Your task to perform on an android device: change notifications settings Image 0: 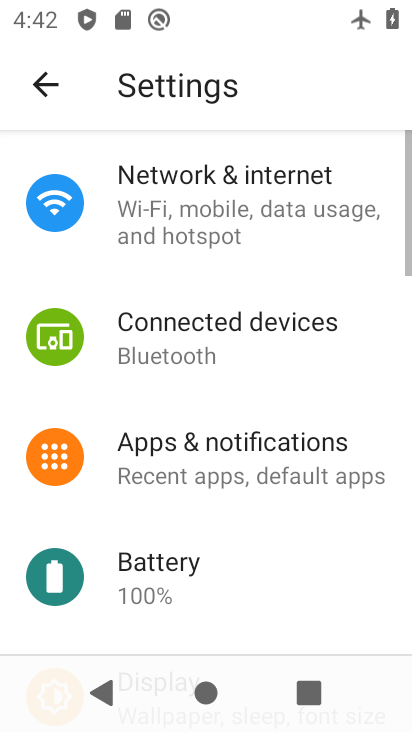
Step 0: drag from (248, 663) to (80, 211)
Your task to perform on an android device: change notifications settings Image 1: 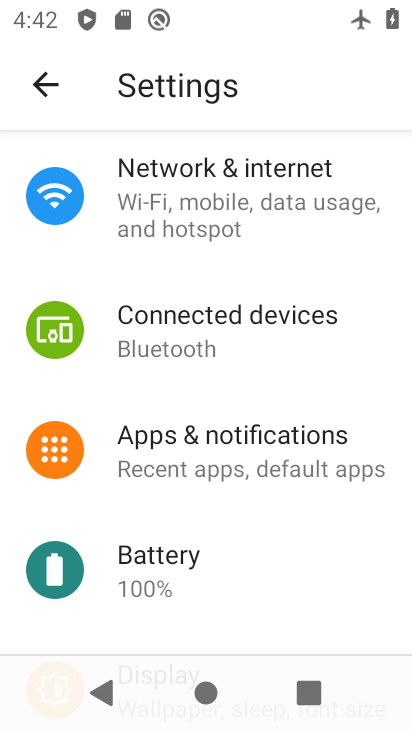
Step 1: click (183, 445)
Your task to perform on an android device: change notifications settings Image 2: 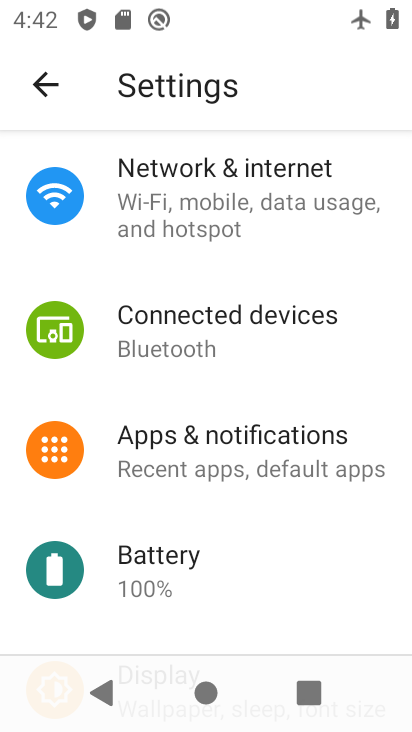
Step 2: click (186, 443)
Your task to perform on an android device: change notifications settings Image 3: 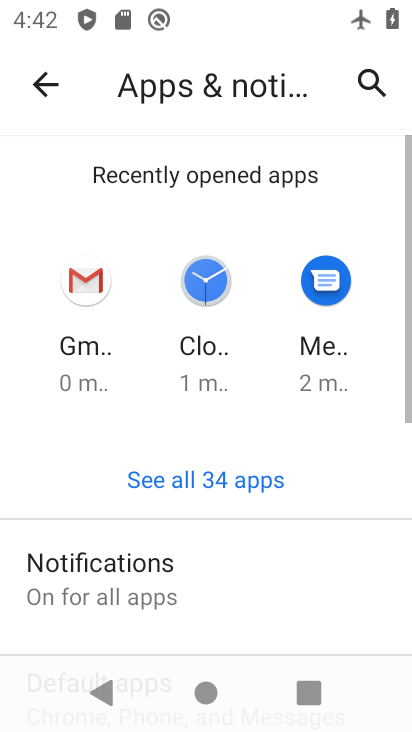
Step 3: click (233, 442)
Your task to perform on an android device: change notifications settings Image 4: 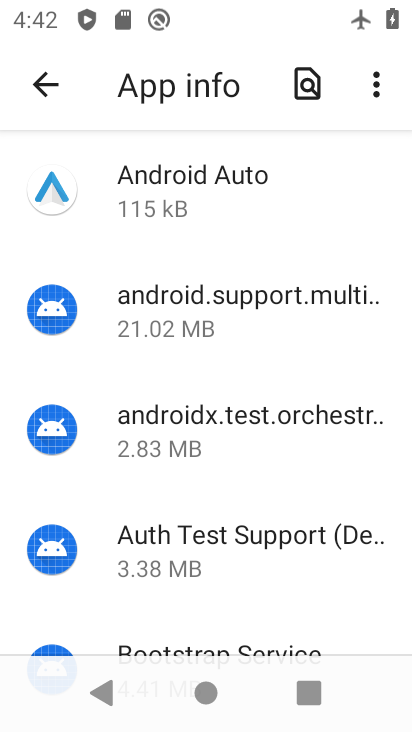
Step 4: drag from (196, 492) to (122, 19)
Your task to perform on an android device: change notifications settings Image 5: 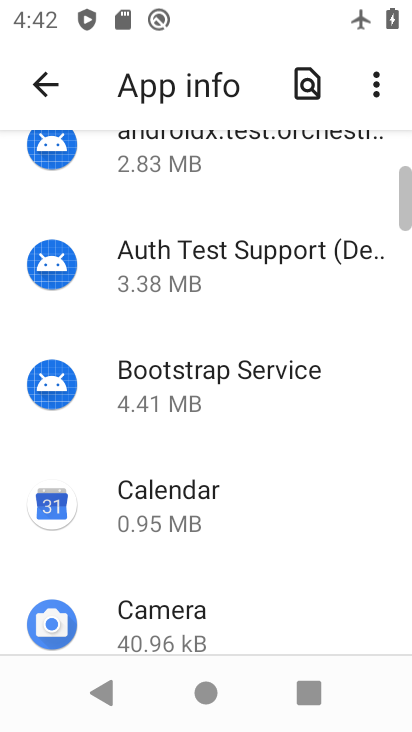
Step 5: click (47, 77)
Your task to perform on an android device: change notifications settings Image 6: 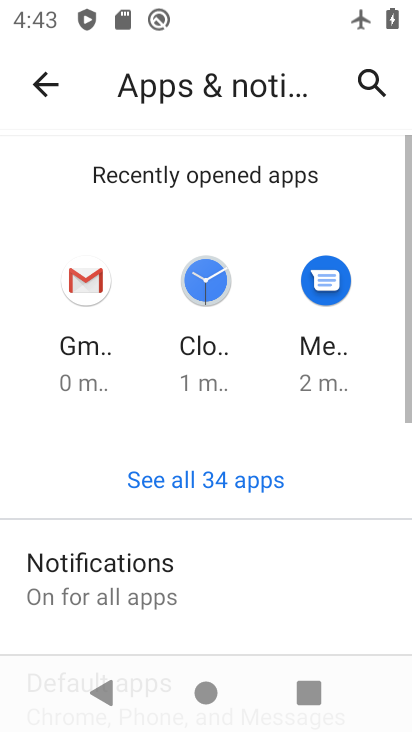
Step 6: click (137, 548)
Your task to perform on an android device: change notifications settings Image 7: 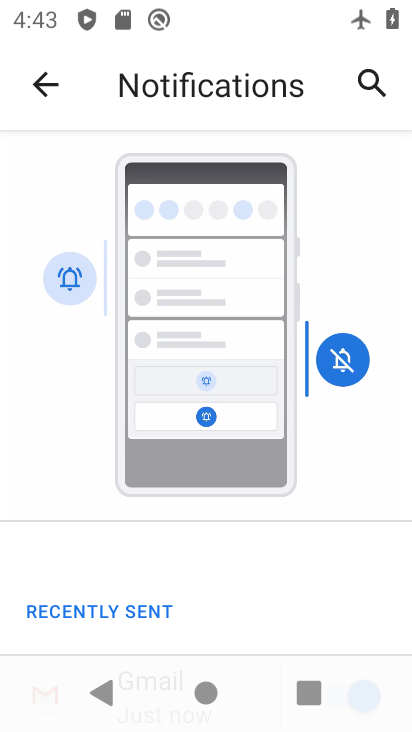
Step 7: drag from (178, 387) to (153, 81)
Your task to perform on an android device: change notifications settings Image 8: 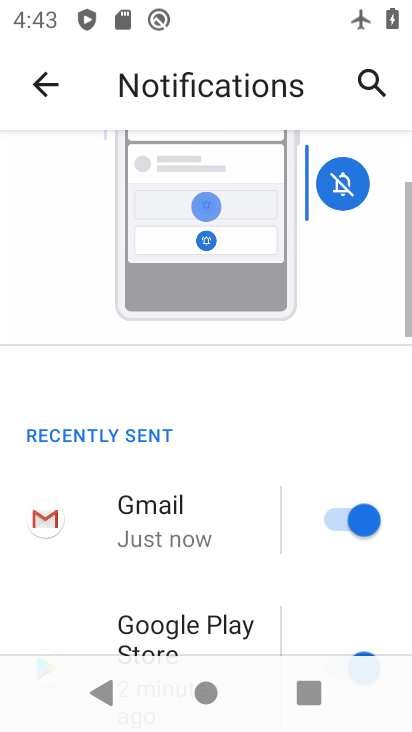
Step 8: drag from (51, 264) to (48, 45)
Your task to perform on an android device: change notifications settings Image 9: 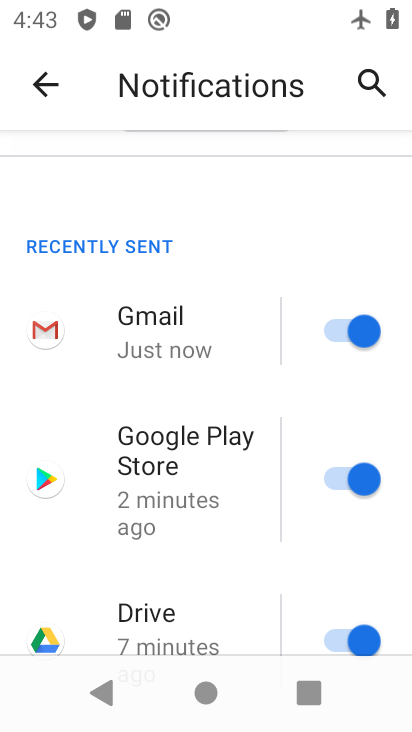
Step 9: drag from (186, 424) to (144, 115)
Your task to perform on an android device: change notifications settings Image 10: 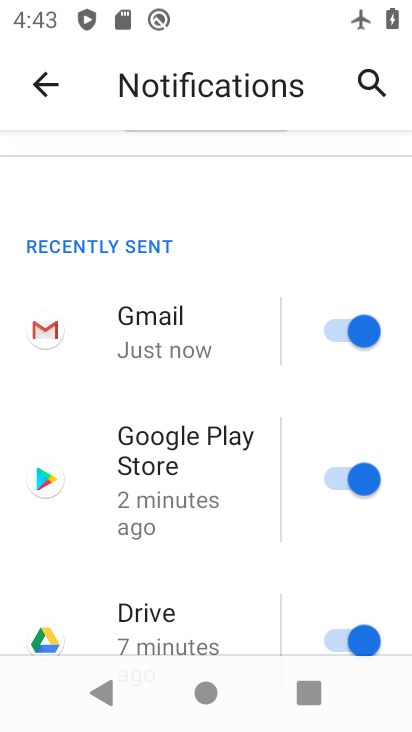
Step 10: click (190, 47)
Your task to perform on an android device: change notifications settings Image 11: 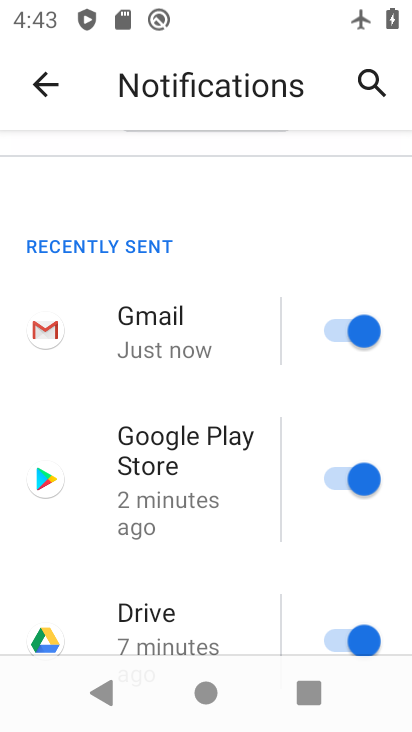
Step 11: drag from (183, 475) to (101, 71)
Your task to perform on an android device: change notifications settings Image 12: 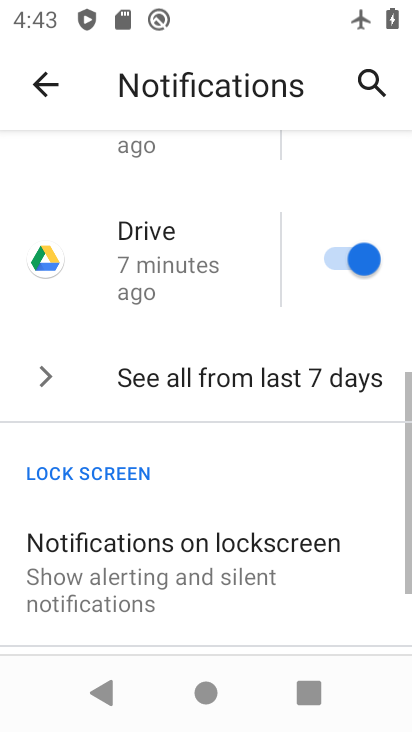
Step 12: drag from (223, 499) to (162, 132)
Your task to perform on an android device: change notifications settings Image 13: 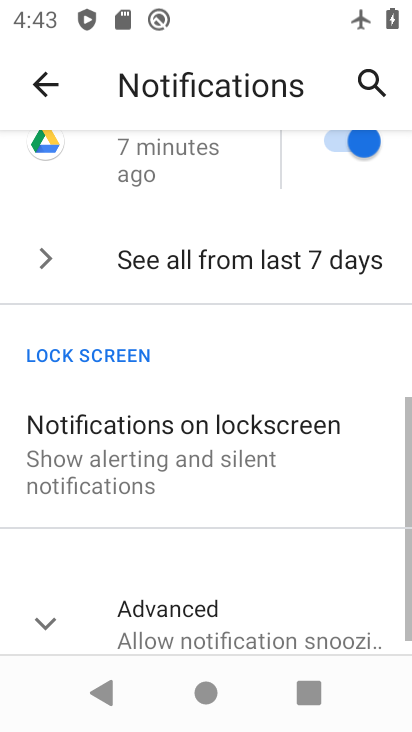
Step 13: drag from (243, 298) to (217, 163)
Your task to perform on an android device: change notifications settings Image 14: 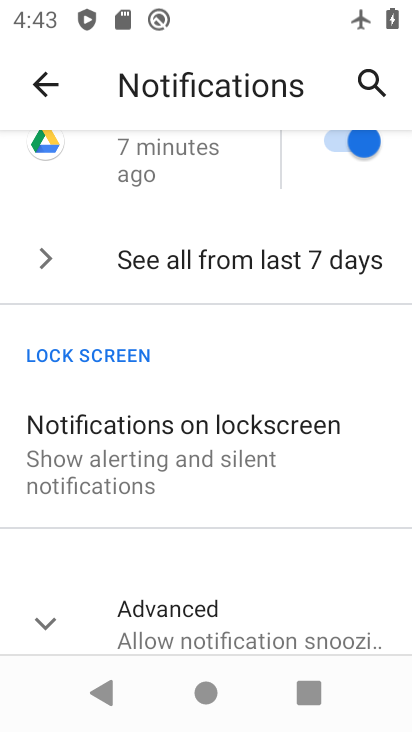
Step 14: click (261, 520)
Your task to perform on an android device: change notifications settings Image 15: 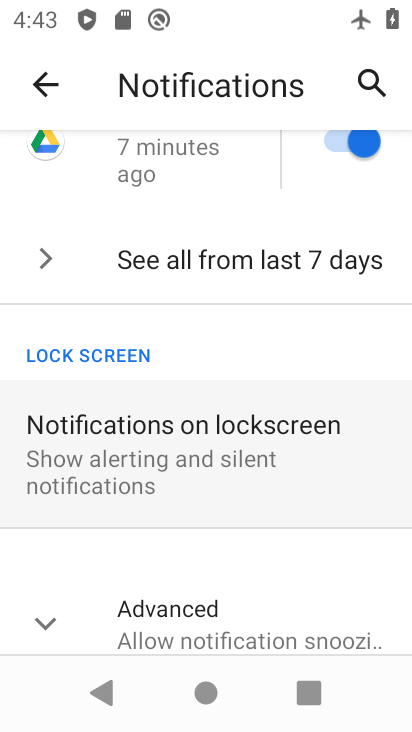
Step 15: click (197, 455)
Your task to perform on an android device: change notifications settings Image 16: 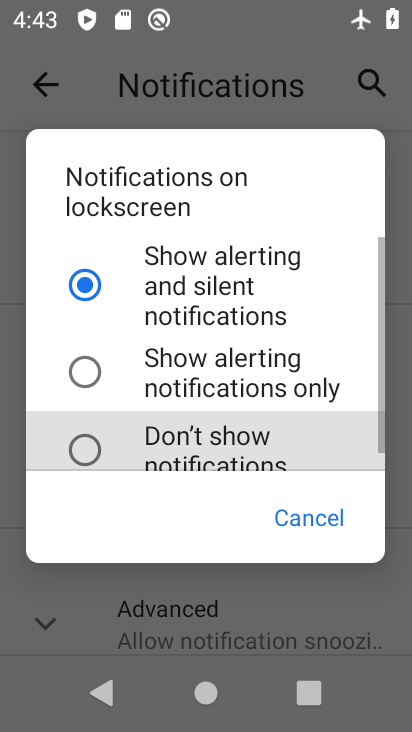
Step 16: click (166, 425)
Your task to perform on an android device: change notifications settings Image 17: 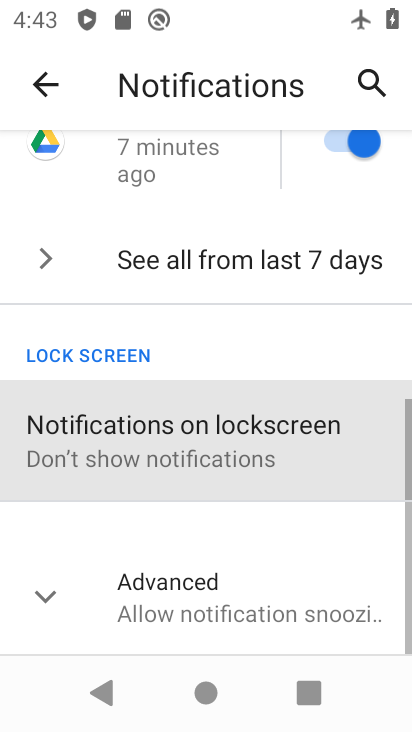
Step 17: click (156, 437)
Your task to perform on an android device: change notifications settings Image 18: 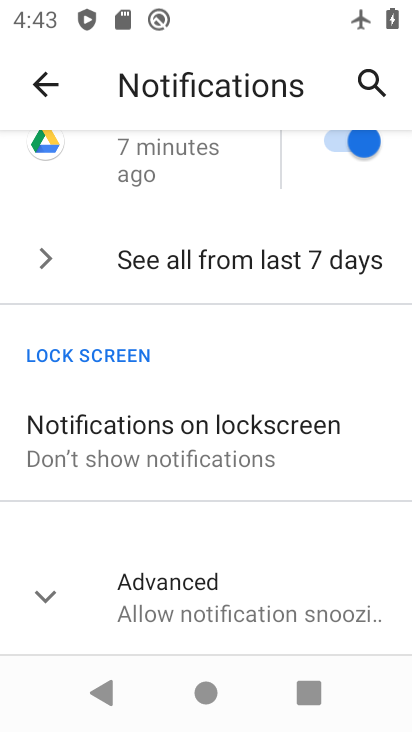
Step 18: click (159, 458)
Your task to perform on an android device: change notifications settings Image 19: 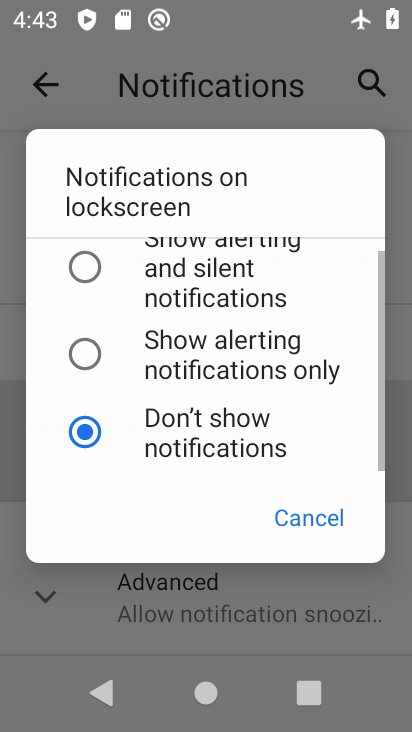
Step 19: click (159, 458)
Your task to perform on an android device: change notifications settings Image 20: 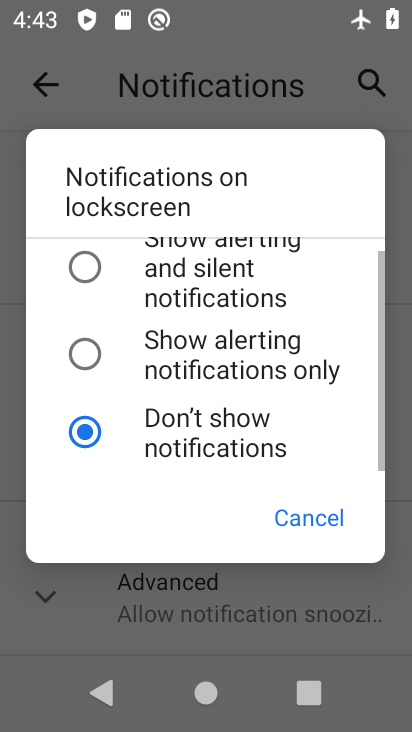
Step 20: click (159, 458)
Your task to perform on an android device: change notifications settings Image 21: 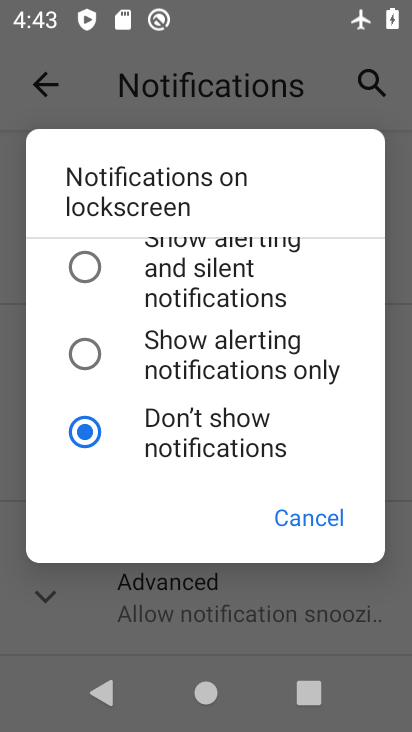
Step 21: click (298, 514)
Your task to perform on an android device: change notifications settings Image 22: 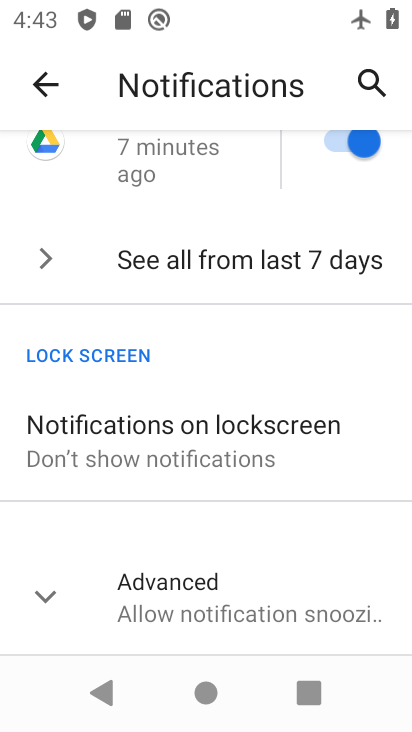
Step 22: drag from (168, 506) to (167, 95)
Your task to perform on an android device: change notifications settings Image 23: 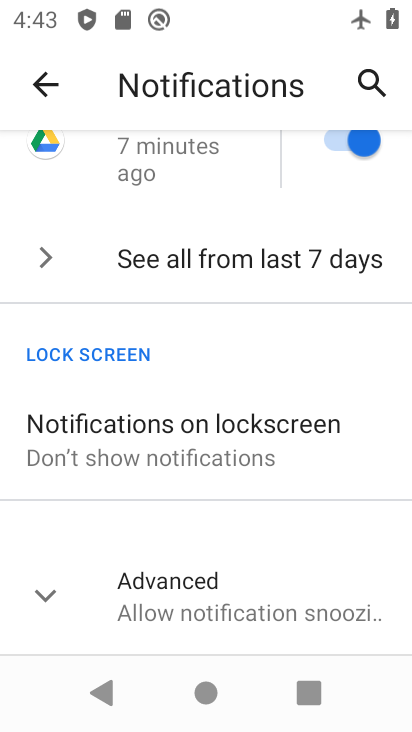
Step 23: click (170, 593)
Your task to perform on an android device: change notifications settings Image 24: 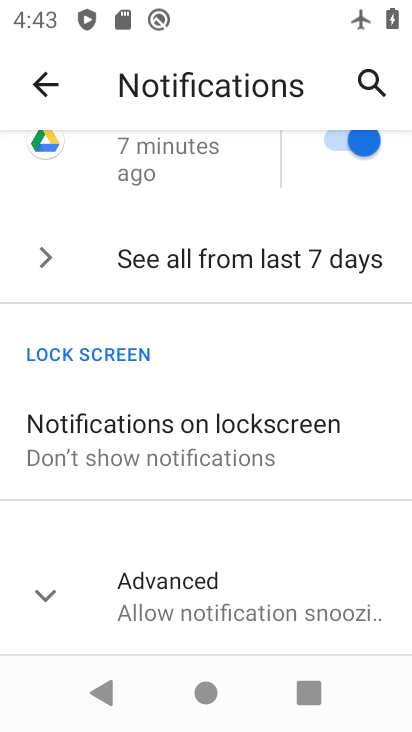
Step 24: click (170, 593)
Your task to perform on an android device: change notifications settings Image 25: 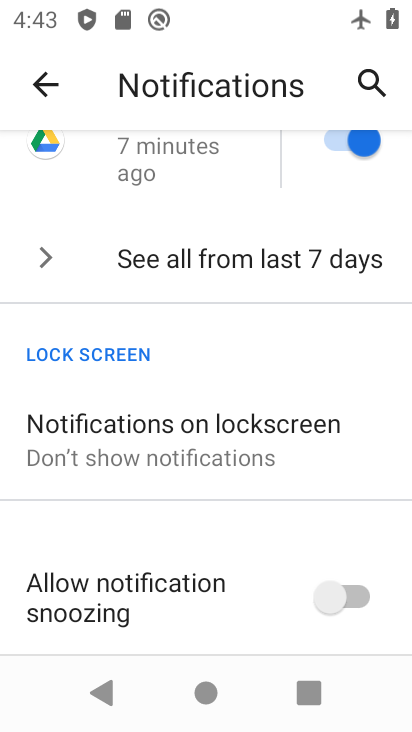
Step 25: drag from (195, 308) to (169, 181)
Your task to perform on an android device: change notifications settings Image 26: 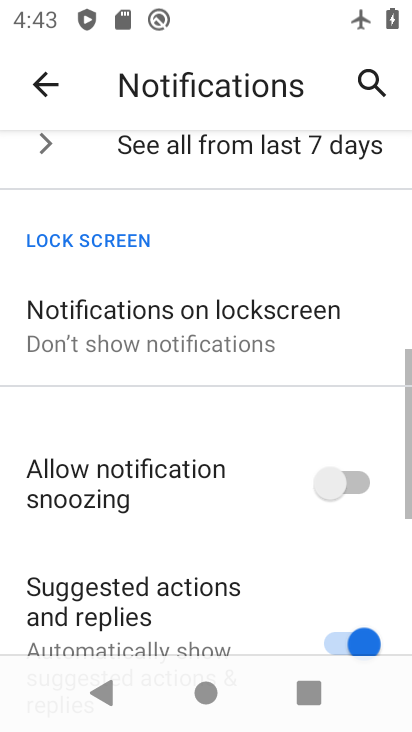
Step 26: click (192, 123)
Your task to perform on an android device: change notifications settings Image 27: 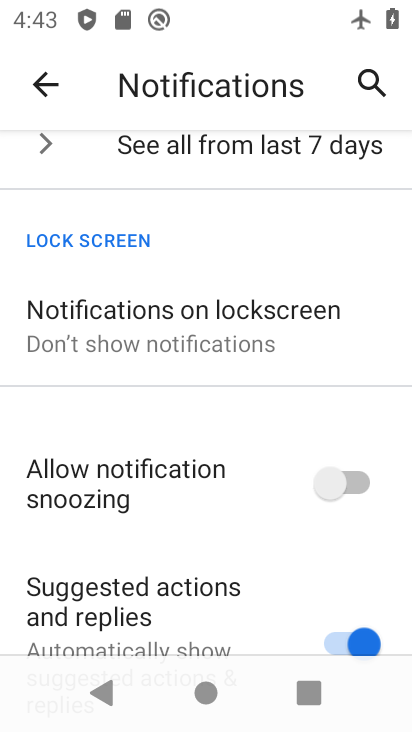
Step 27: click (334, 488)
Your task to perform on an android device: change notifications settings Image 28: 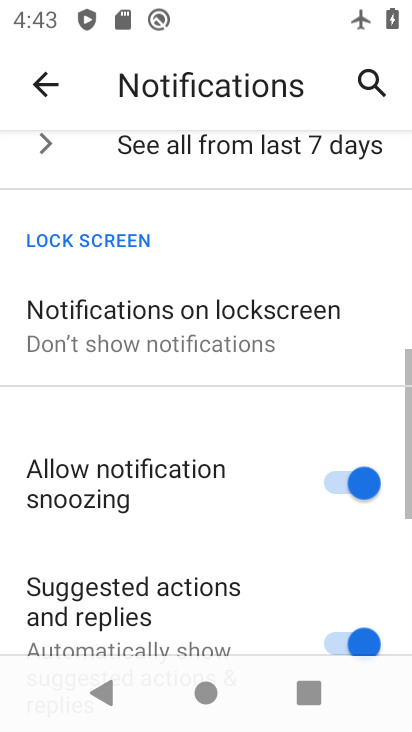
Step 28: drag from (245, 532) to (270, 137)
Your task to perform on an android device: change notifications settings Image 29: 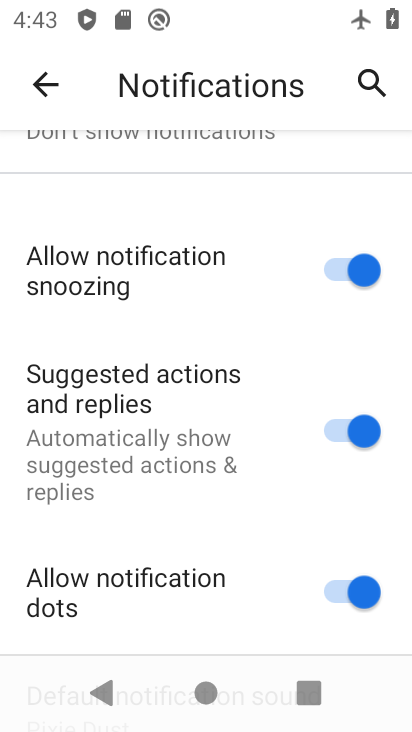
Step 29: click (359, 595)
Your task to perform on an android device: change notifications settings Image 30: 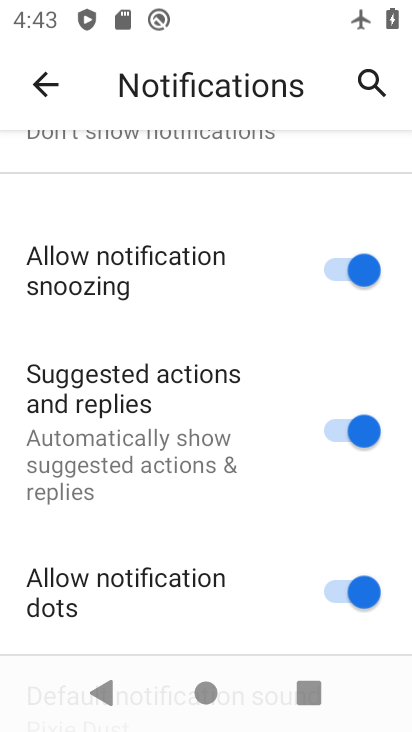
Step 30: click (362, 588)
Your task to perform on an android device: change notifications settings Image 31: 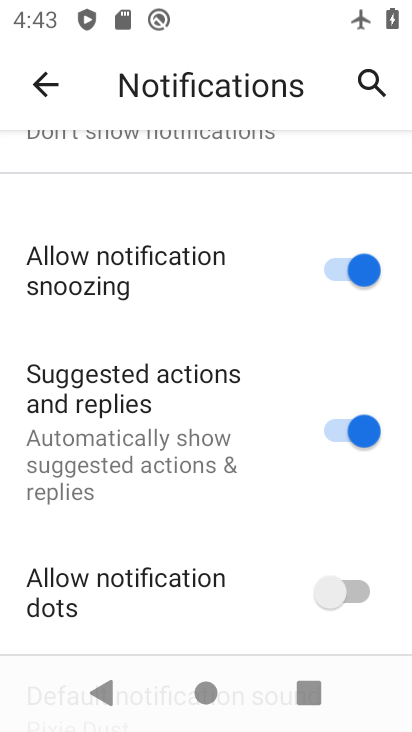
Step 31: task complete